Your task to perform on an android device: Play the latest video from the New York Times Image 0: 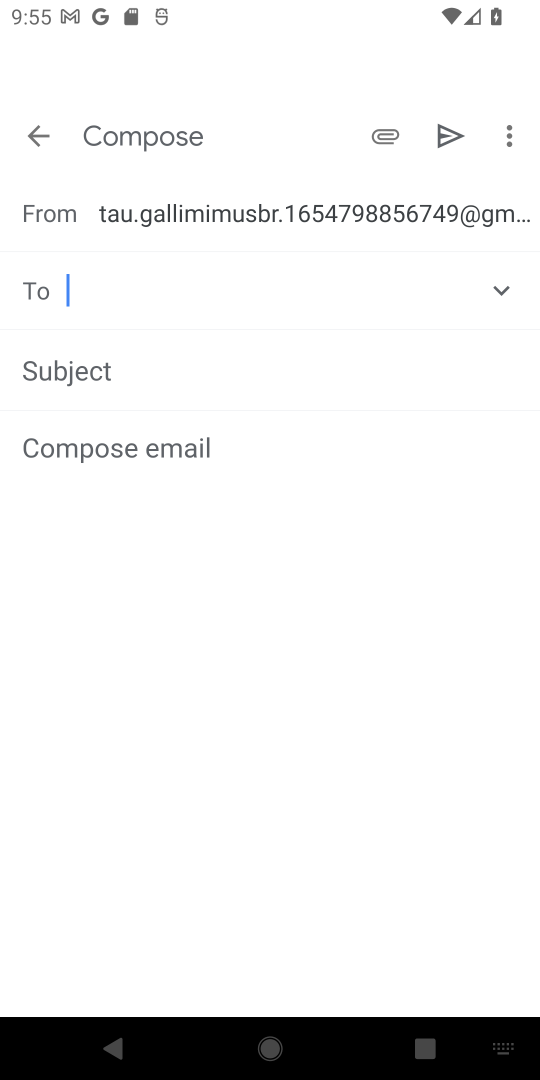
Step 0: press home button
Your task to perform on an android device: Play the latest video from the New York Times Image 1: 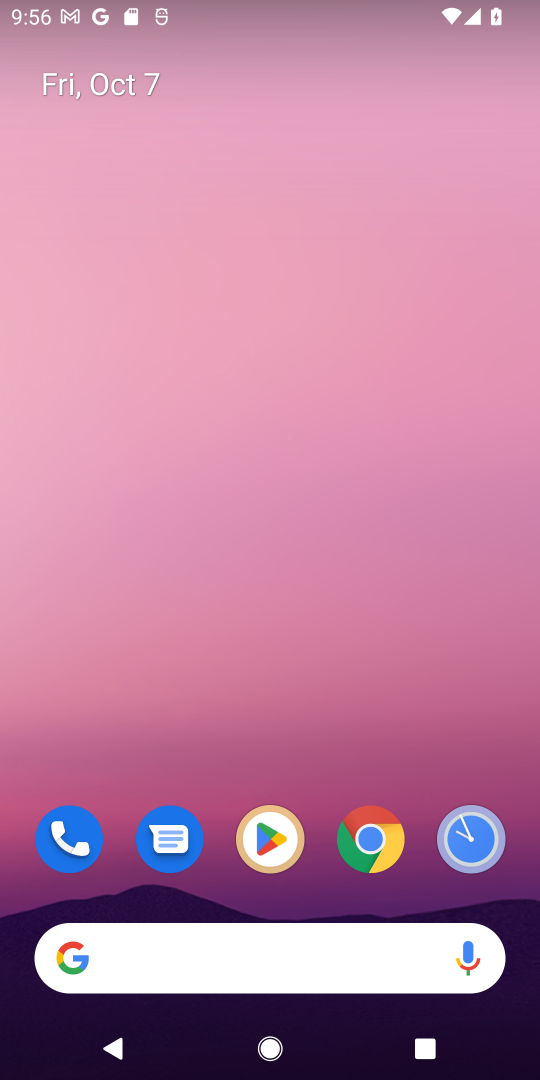
Step 1: click (390, 833)
Your task to perform on an android device: Play the latest video from the New York Times Image 2: 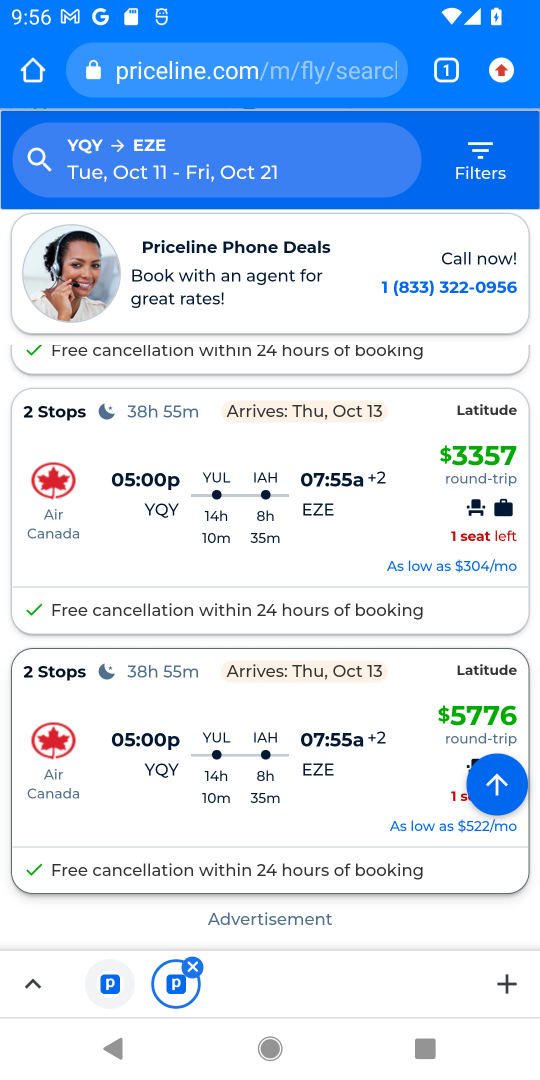
Step 2: click (245, 66)
Your task to perform on an android device: Play the latest video from the New York Times Image 3: 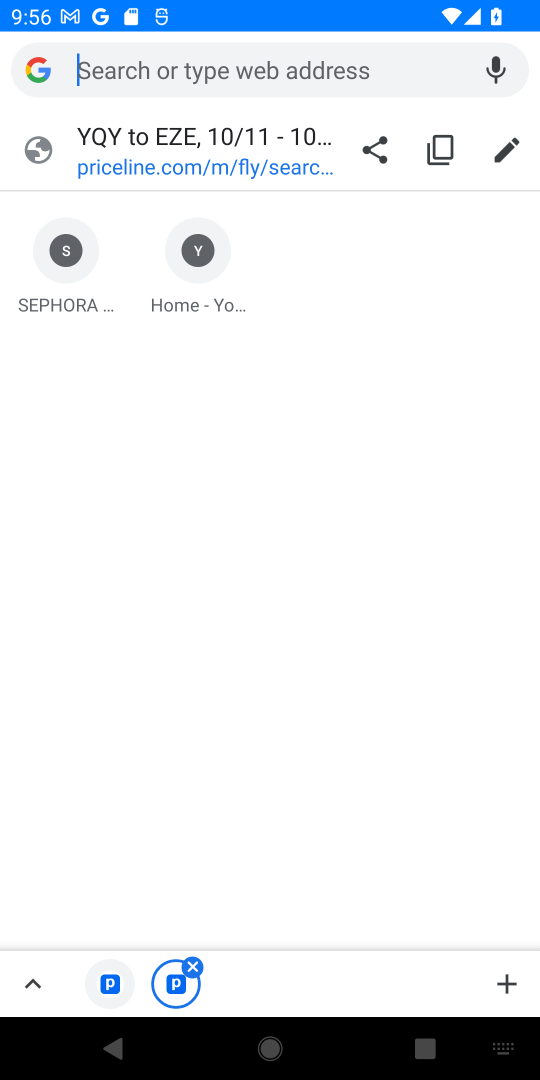
Step 3: type "new york times latest video "
Your task to perform on an android device: Play the latest video from the New York Times Image 4: 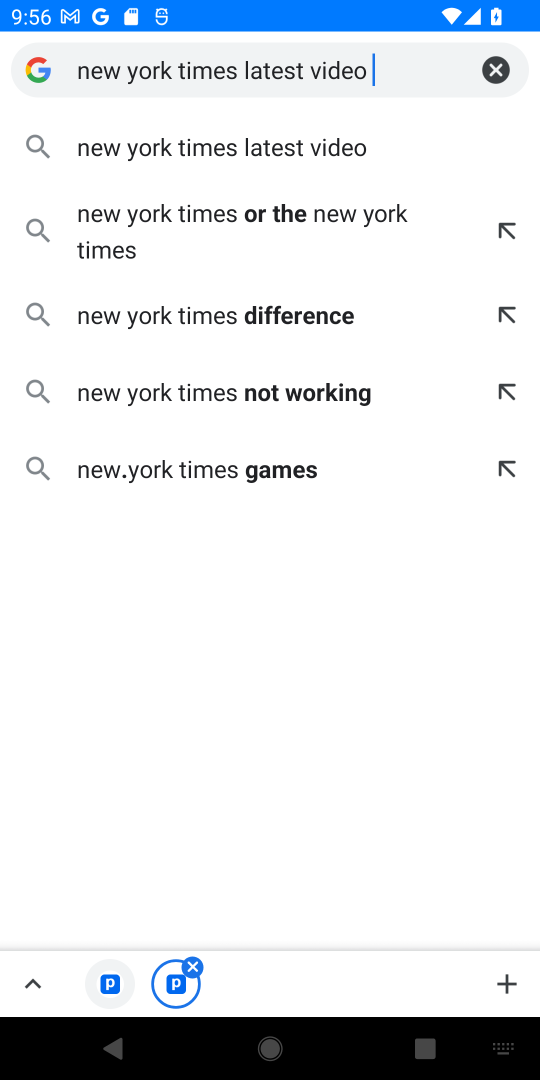
Step 4: click (235, 146)
Your task to perform on an android device: Play the latest video from the New York Times Image 5: 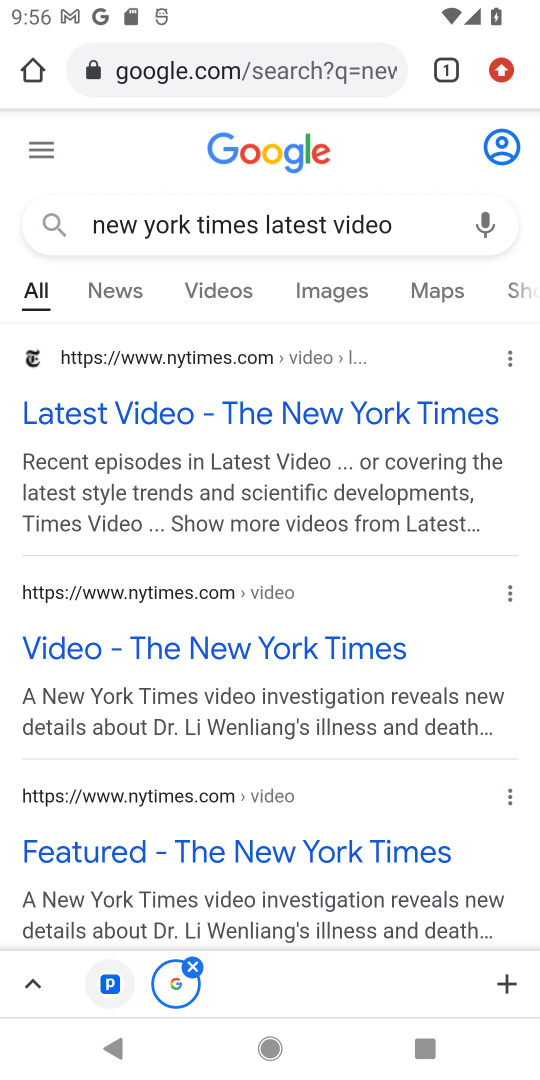
Step 5: click (145, 416)
Your task to perform on an android device: Play the latest video from the New York Times Image 6: 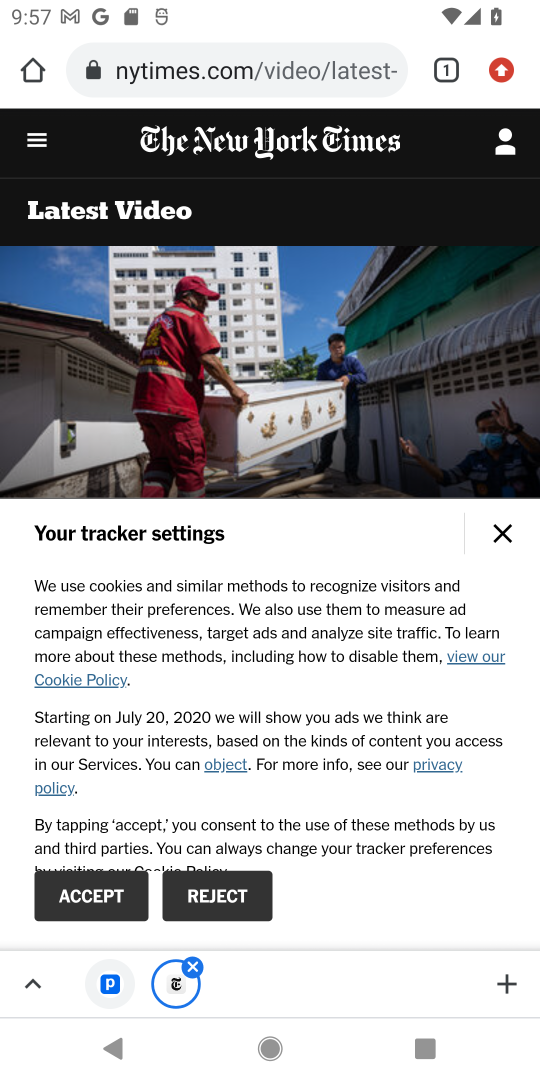
Step 6: click (506, 536)
Your task to perform on an android device: Play the latest video from the New York Times Image 7: 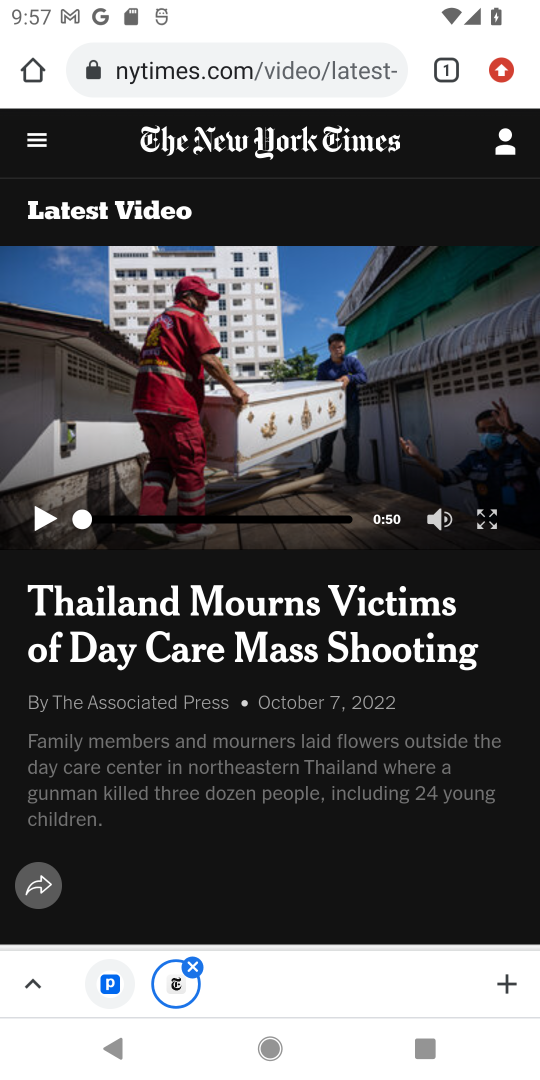
Step 7: drag from (170, 723) to (269, 245)
Your task to perform on an android device: Play the latest video from the New York Times Image 8: 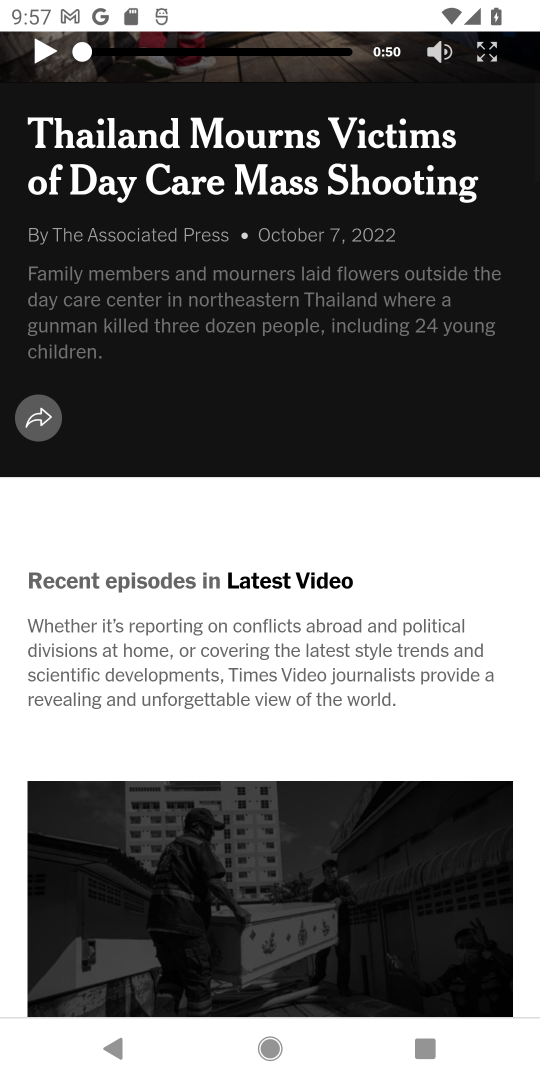
Step 8: drag from (206, 756) to (262, 368)
Your task to perform on an android device: Play the latest video from the New York Times Image 9: 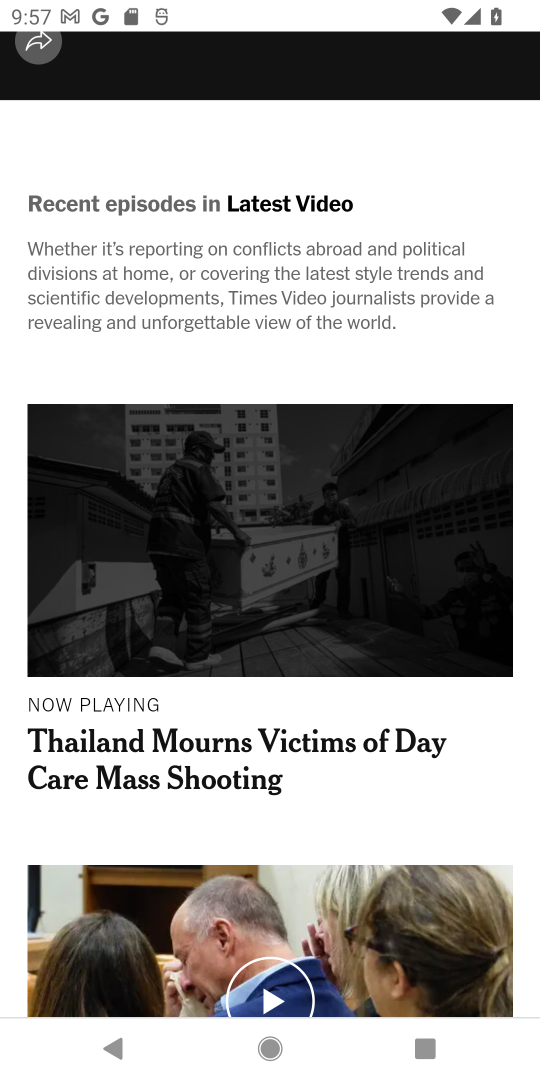
Step 9: drag from (213, 436) to (283, 968)
Your task to perform on an android device: Play the latest video from the New York Times Image 10: 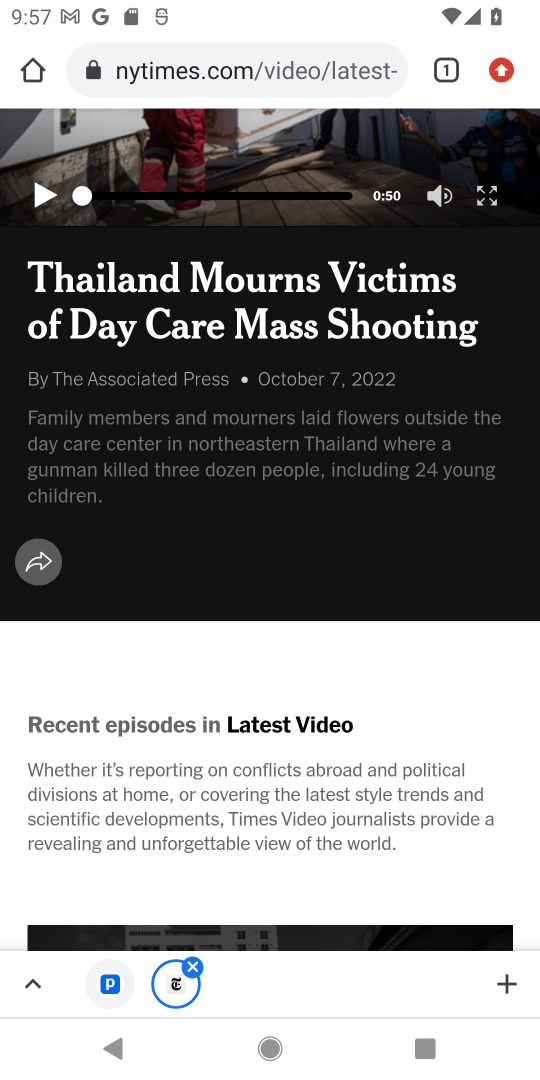
Step 10: drag from (202, 246) to (288, 893)
Your task to perform on an android device: Play the latest video from the New York Times Image 11: 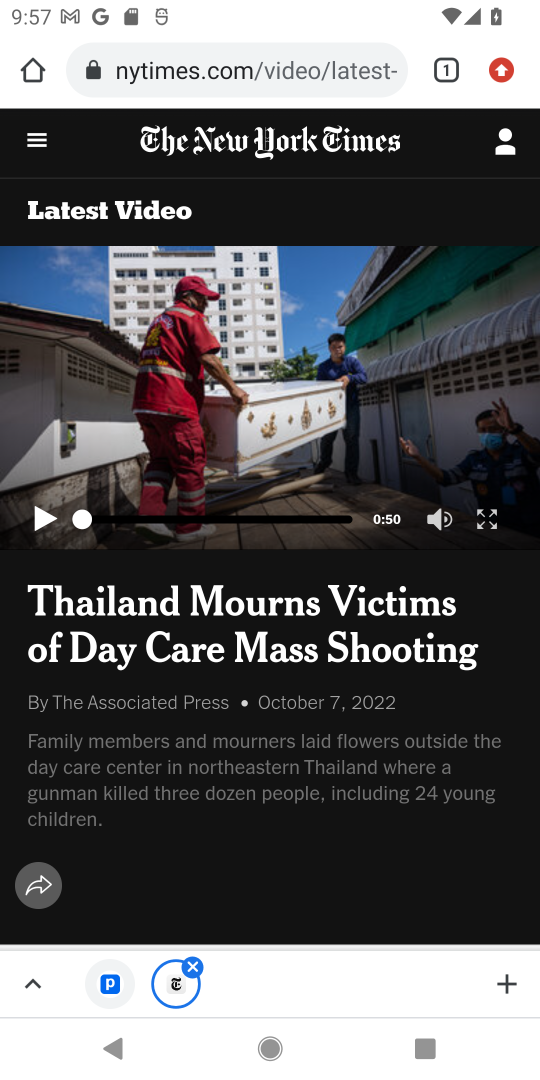
Step 11: drag from (214, 692) to (314, 189)
Your task to perform on an android device: Play the latest video from the New York Times Image 12: 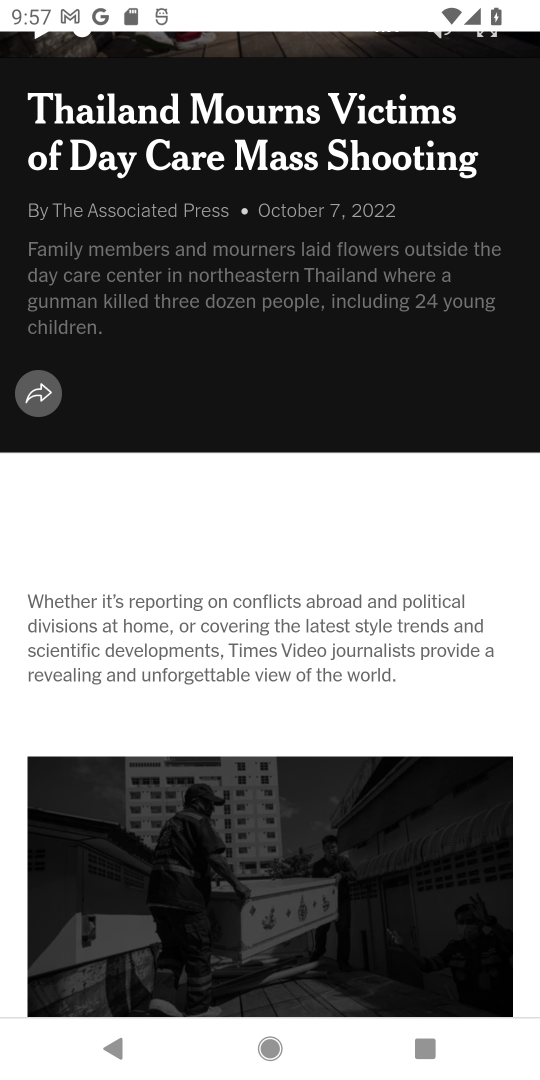
Step 12: drag from (201, 856) to (305, 366)
Your task to perform on an android device: Play the latest video from the New York Times Image 13: 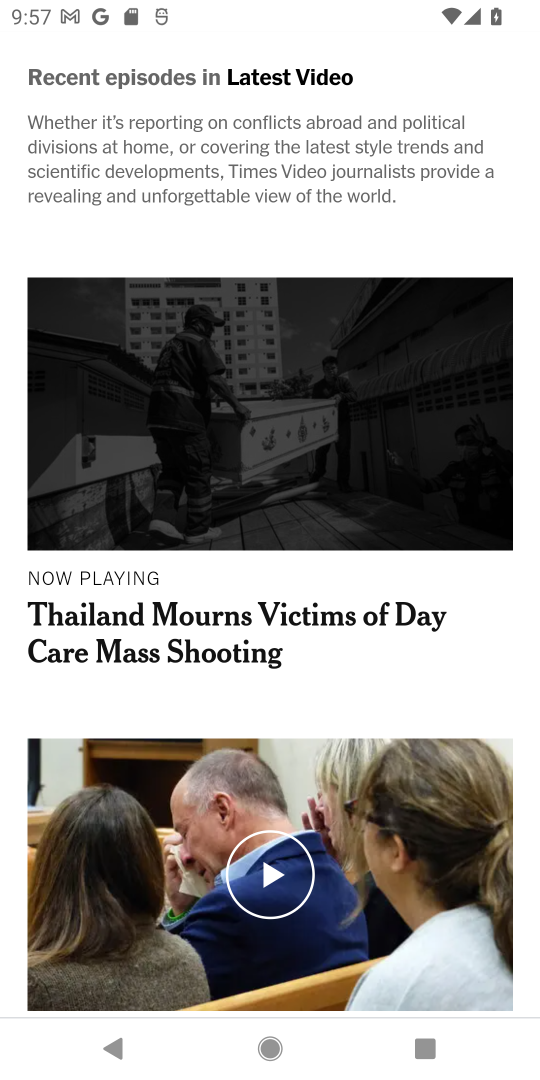
Step 13: drag from (267, 257) to (289, 798)
Your task to perform on an android device: Play the latest video from the New York Times Image 14: 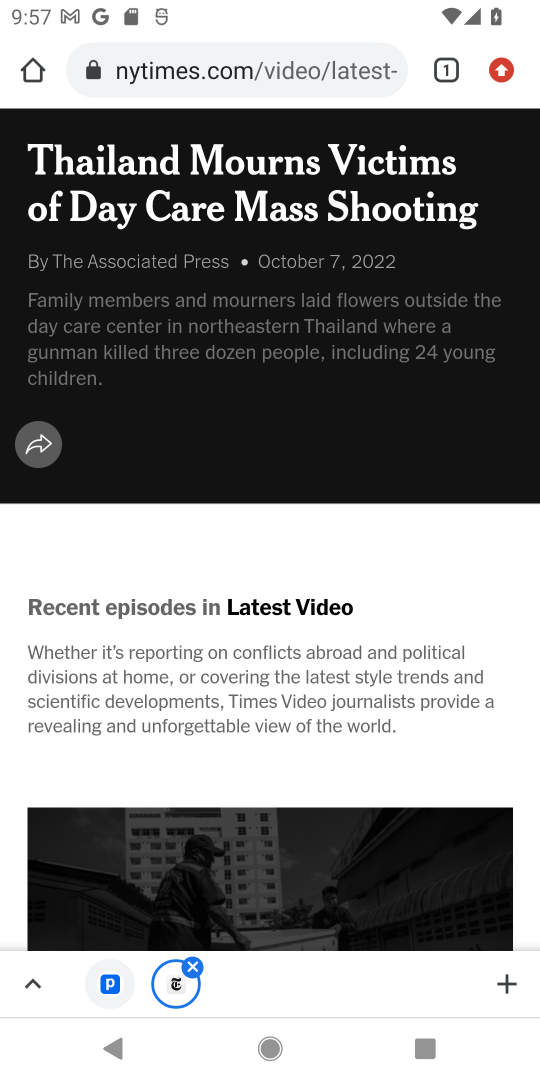
Step 14: drag from (296, 304) to (353, 686)
Your task to perform on an android device: Play the latest video from the New York Times Image 15: 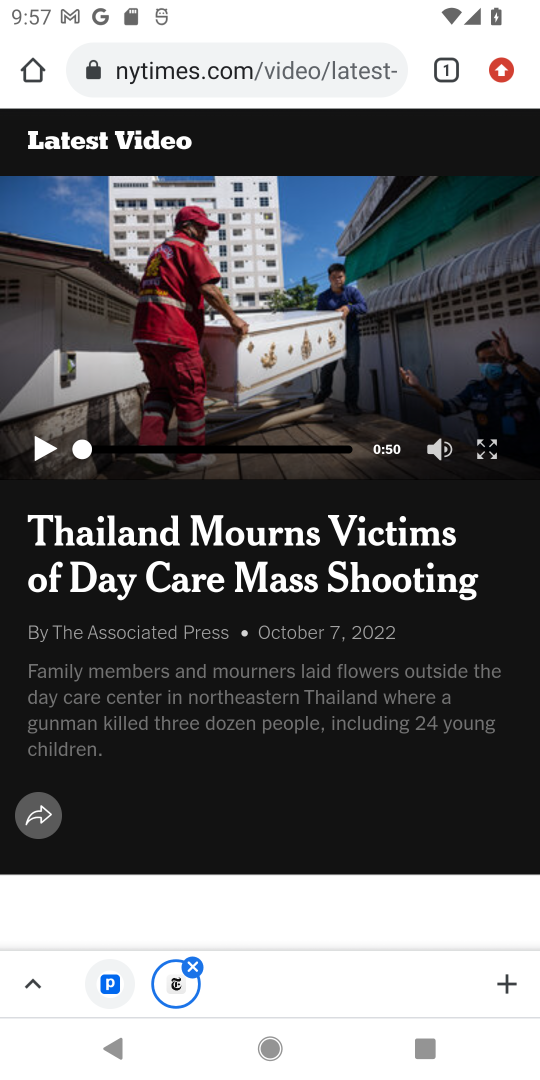
Step 15: drag from (242, 826) to (350, 217)
Your task to perform on an android device: Play the latest video from the New York Times Image 16: 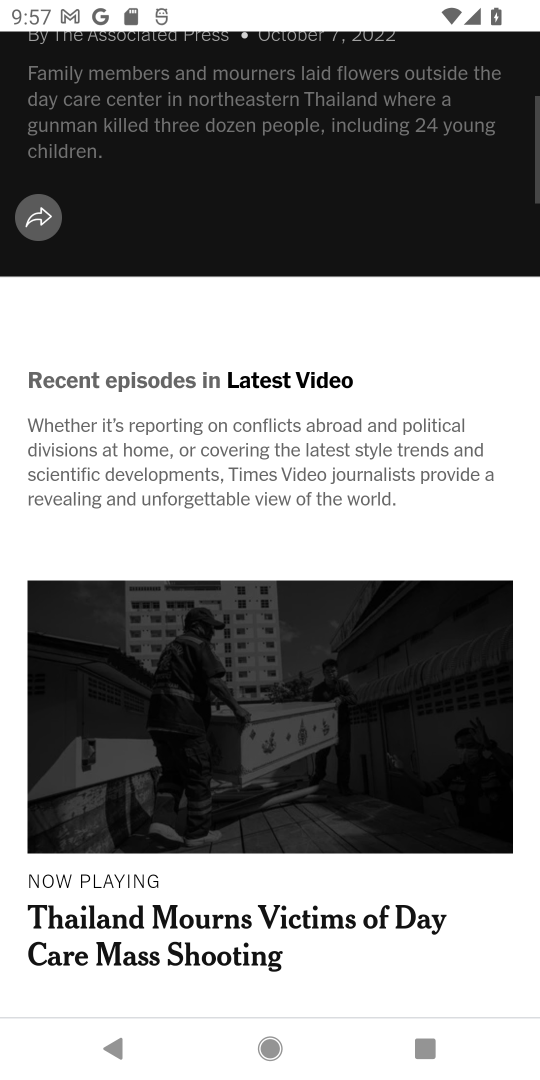
Step 16: drag from (371, 799) to (463, 399)
Your task to perform on an android device: Play the latest video from the New York Times Image 17: 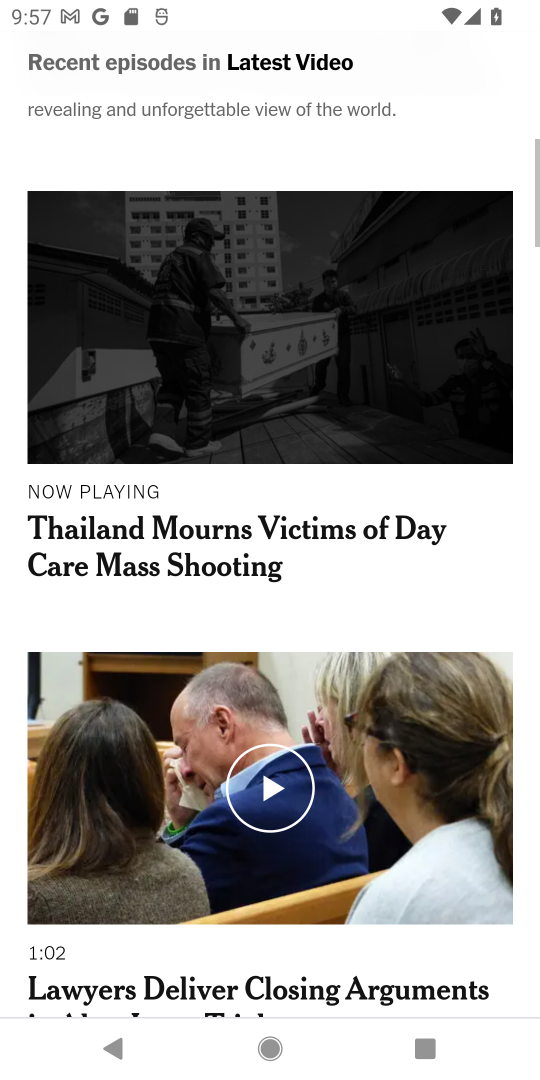
Step 17: drag from (319, 836) to (397, 432)
Your task to perform on an android device: Play the latest video from the New York Times Image 18: 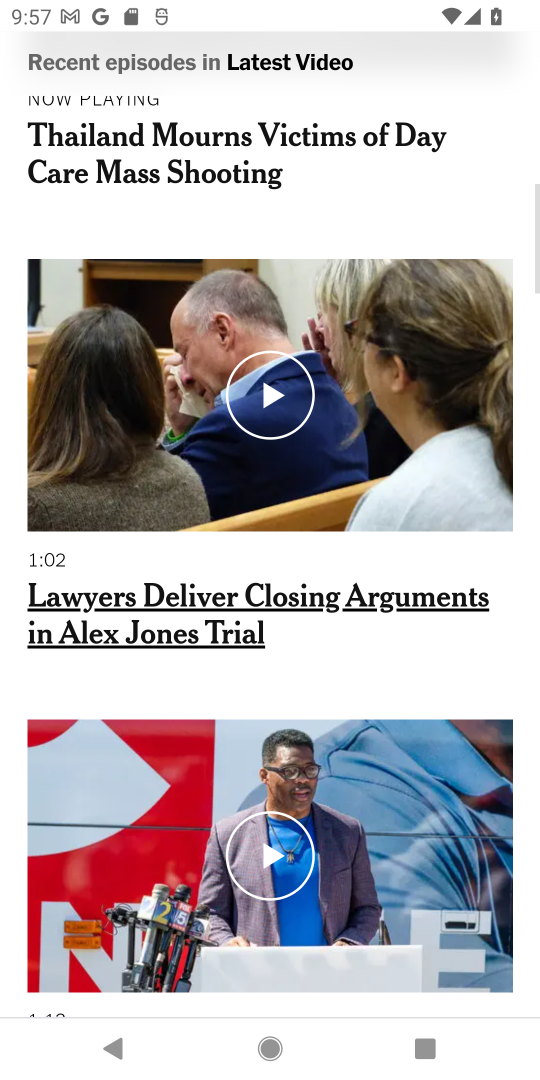
Step 18: drag from (389, 631) to (433, 351)
Your task to perform on an android device: Play the latest video from the New York Times Image 19: 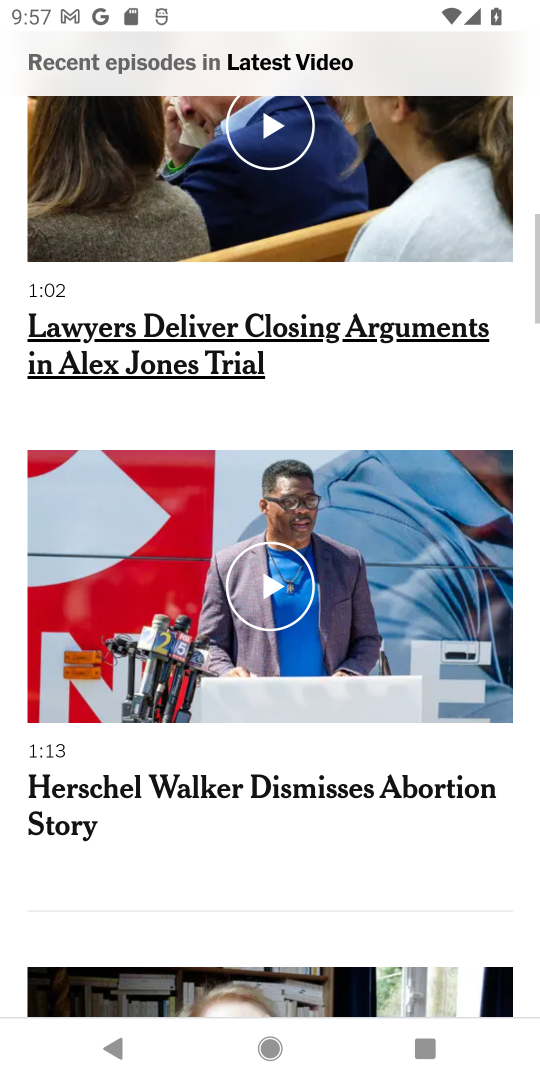
Step 19: drag from (318, 818) to (373, 605)
Your task to perform on an android device: Play the latest video from the New York Times Image 20: 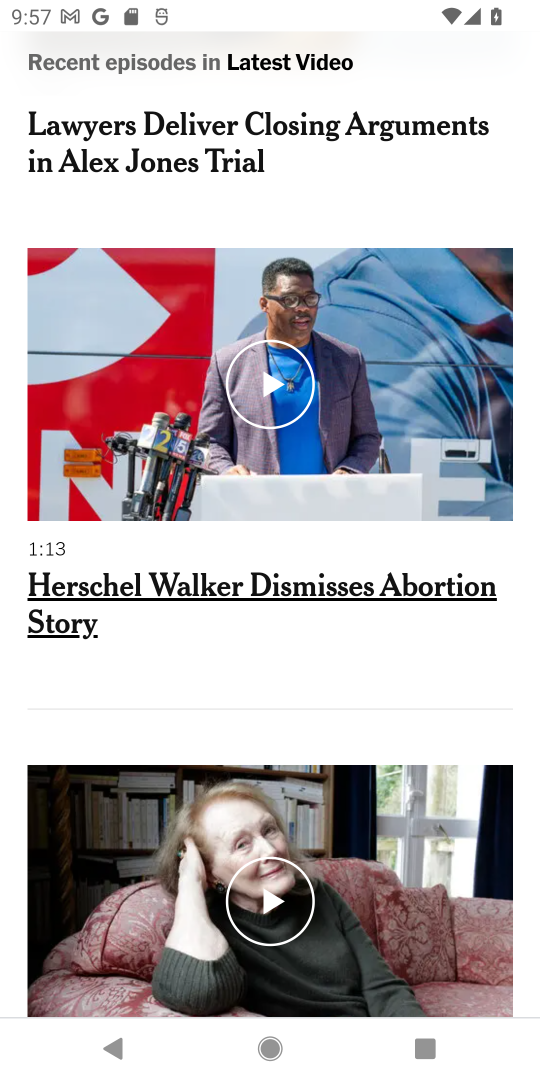
Step 20: drag from (267, 849) to (396, 435)
Your task to perform on an android device: Play the latest video from the New York Times Image 21: 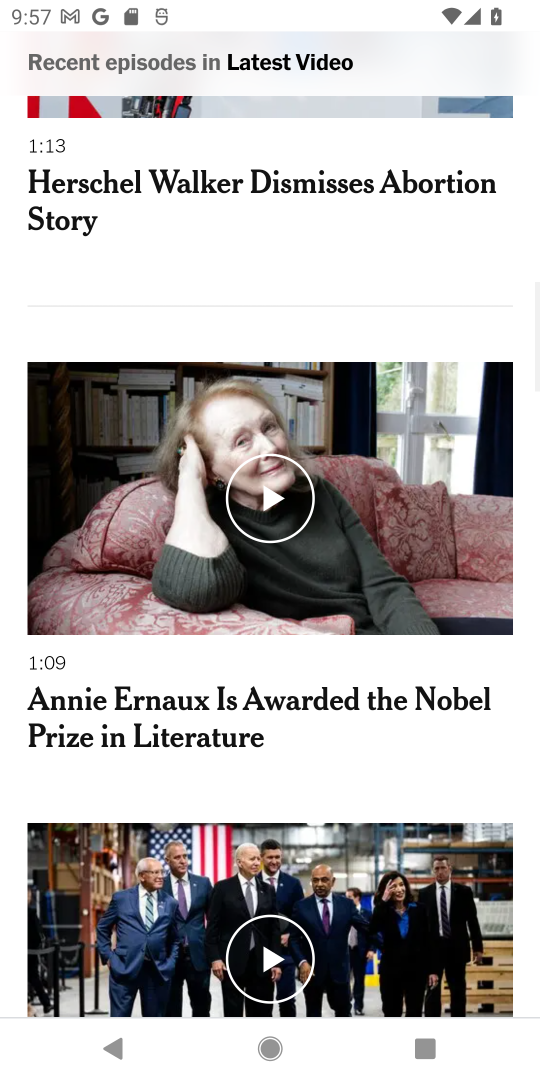
Step 21: drag from (301, 795) to (374, 418)
Your task to perform on an android device: Play the latest video from the New York Times Image 22: 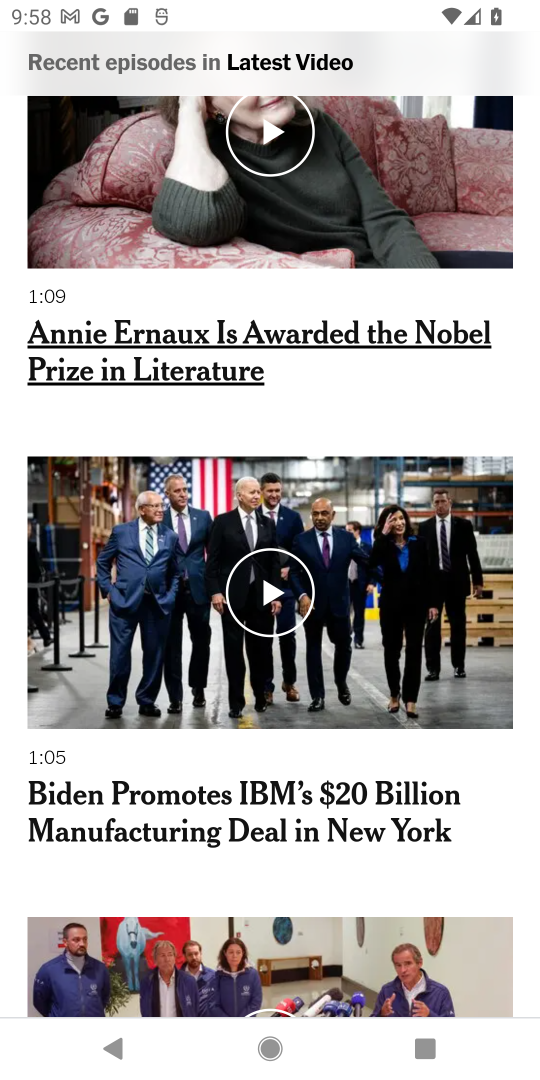
Step 22: click (169, 251)
Your task to perform on an android device: Play the latest video from the New York Times Image 23: 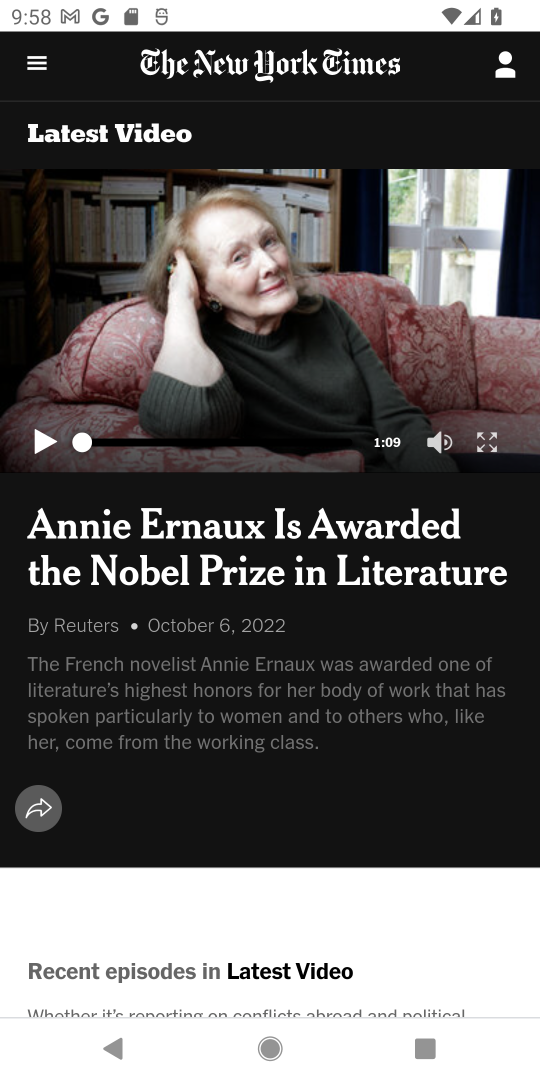
Step 23: click (52, 143)
Your task to perform on an android device: Play the latest video from the New York Times Image 24: 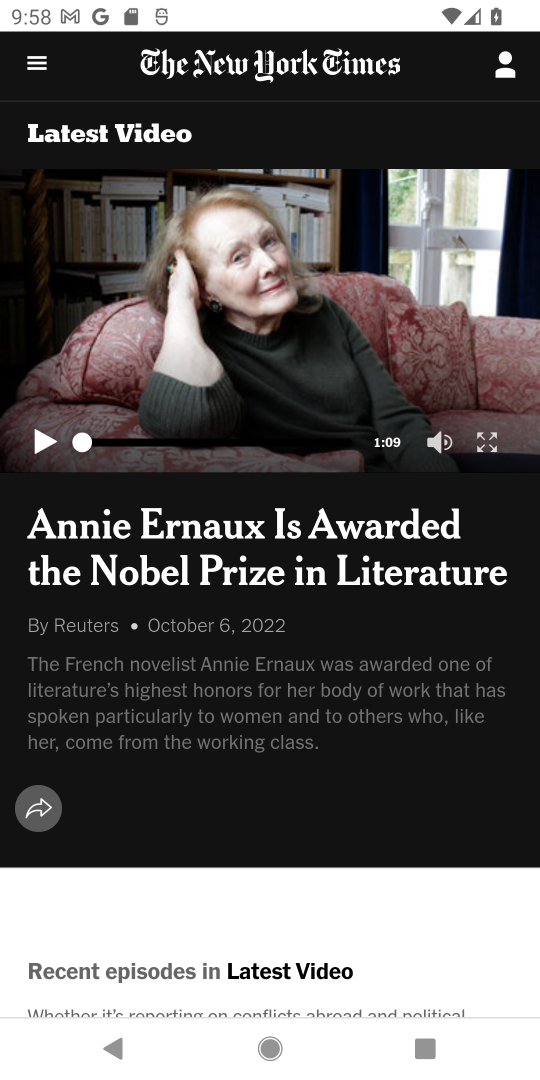
Step 24: click (52, 143)
Your task to perform on an android device: Play the latest video from the New York Times Image 25: 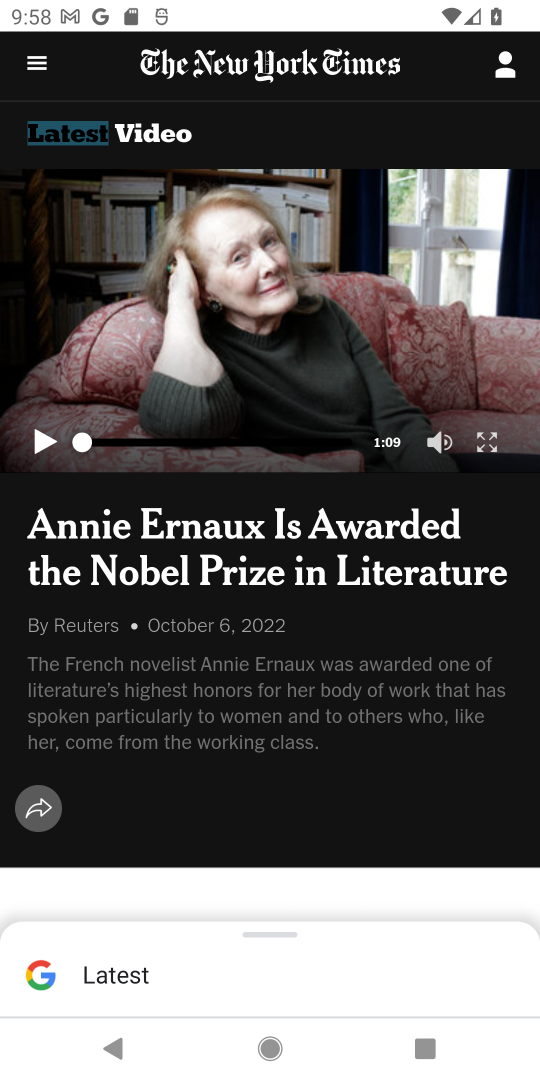
Step 25: drag from (117, 362) to (213, 604)
Your task to perform on an android device: Play the latest video from the New York Times Image 26: 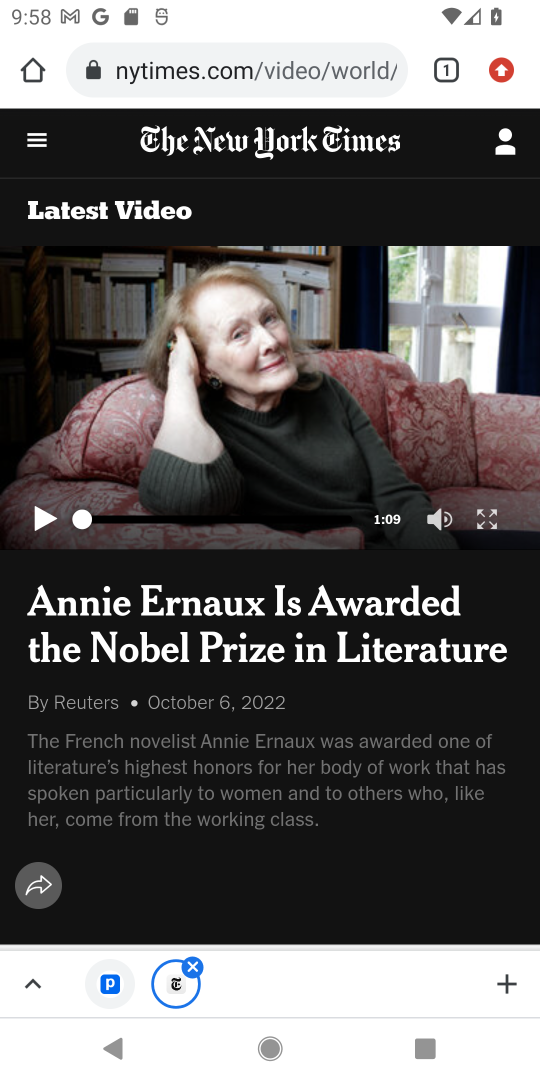
Step 26: click (46, 521)
Your task to perform on an android device: Play the latest video from the New York Times Image 27: 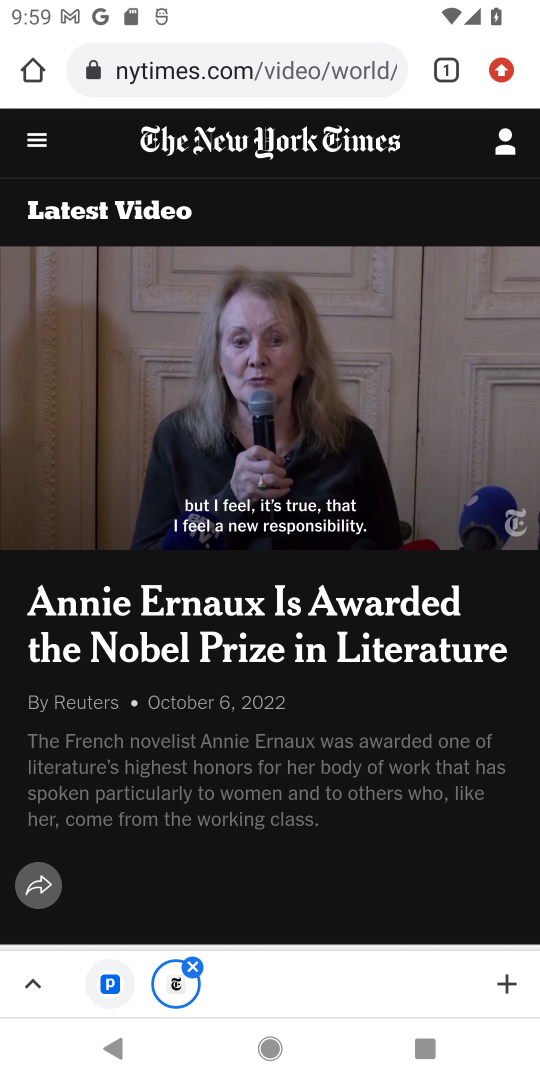
Step 27: task complete